Your task to perform on an android device: What's the weather? Image 0: 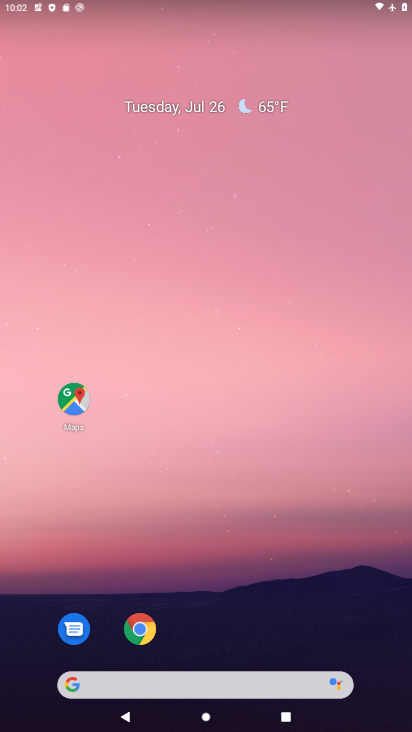
Step 0: click (259, 102)
Your task to perform on an android device: What's the weather? Image 1: 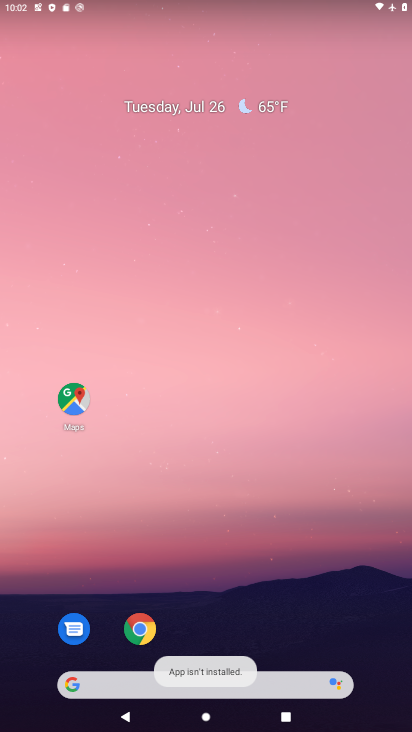
Step 1: click (273, 110)
Your task to perform on an android device: What's the weather? Image 2: 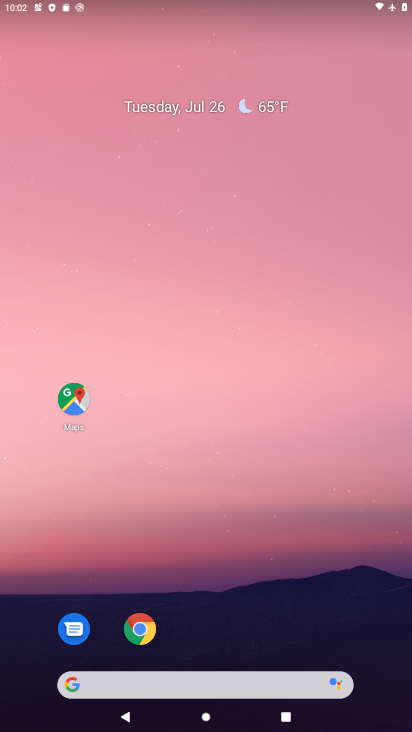
Step 2: drag from (240, 605) to (303, 5)
Your task to perform on an android device: What's the weather? Image 3: 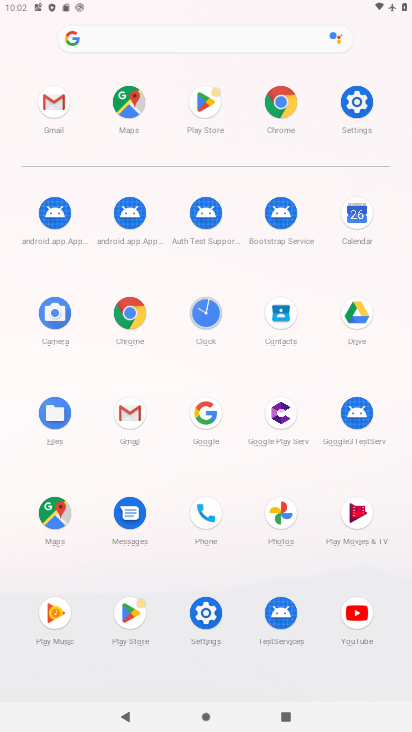
Step 3: click (278, 100)
Your task to perform on an android device: What's the weather? Image 4: 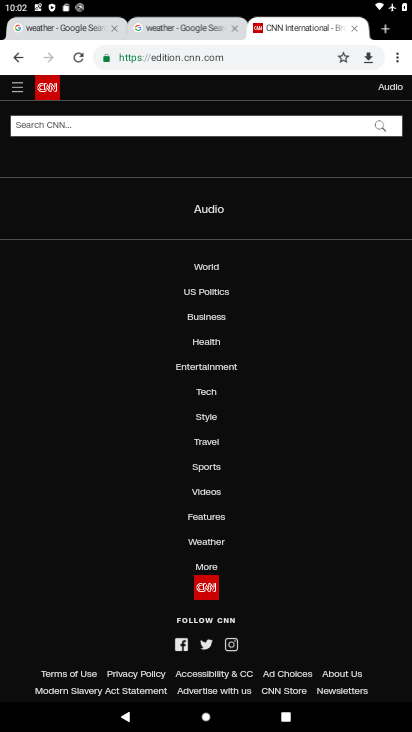
Step 4: click (239, 54)
Your task to perform on an android device: What's the weather? Image 5: 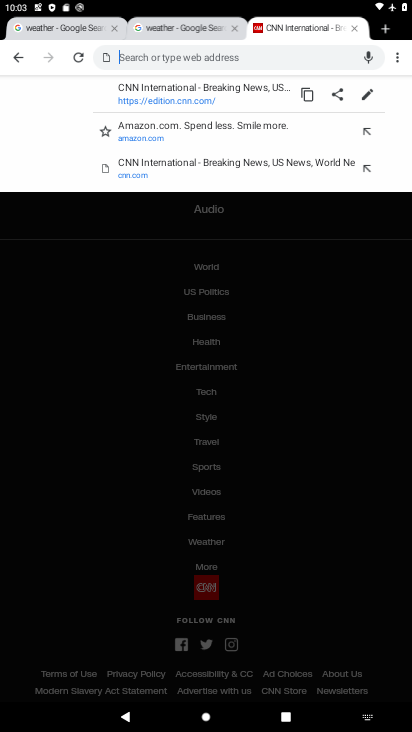
Step 5: type "weather"
Your task to perform on an android device: What's the weather? Image 6: 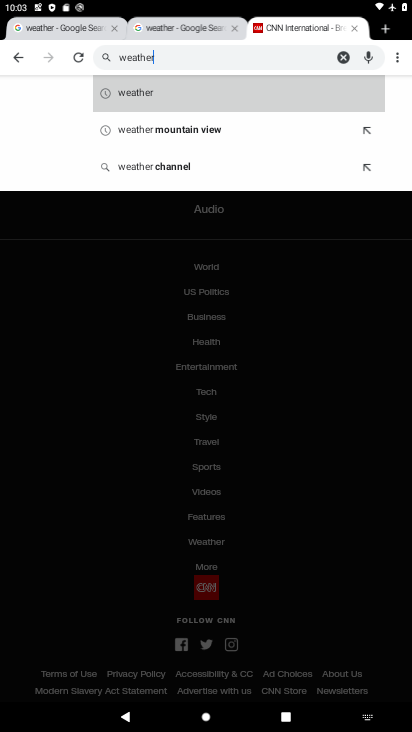
Step 6: click (146, 94)
Your task to perform on an android device: What's the weather? Image 7: 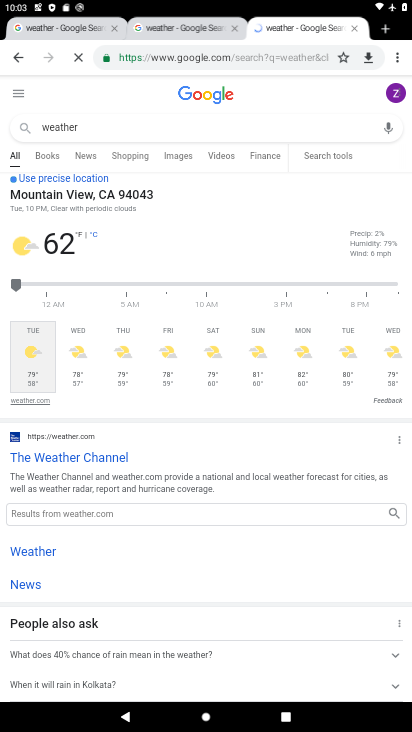
Step 7: task complete